Your task to perform on an android device: move an email to a new category in the gmail app Image 0: 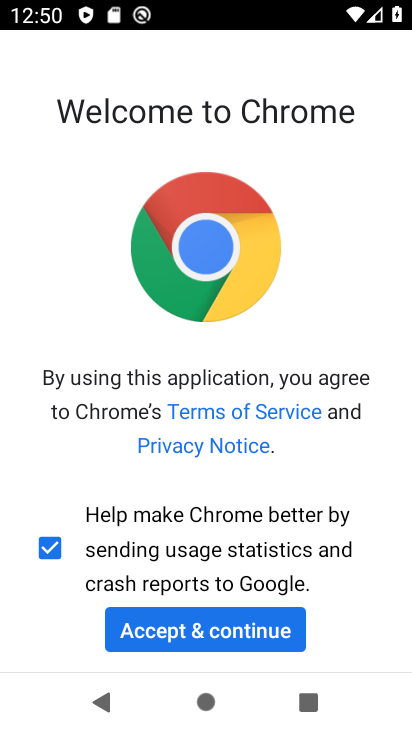
Step 0: press home button
Your task to perform on an android device: move an email to a new category in the gmail app Image 1: 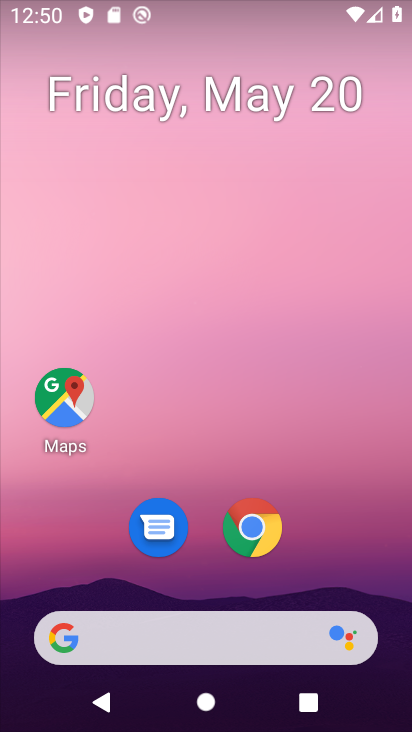
Step 1: drag from (177, 644) to (290, 122)
Your task to perform on an android device: move an email to a new category in the gmail app Image 2: 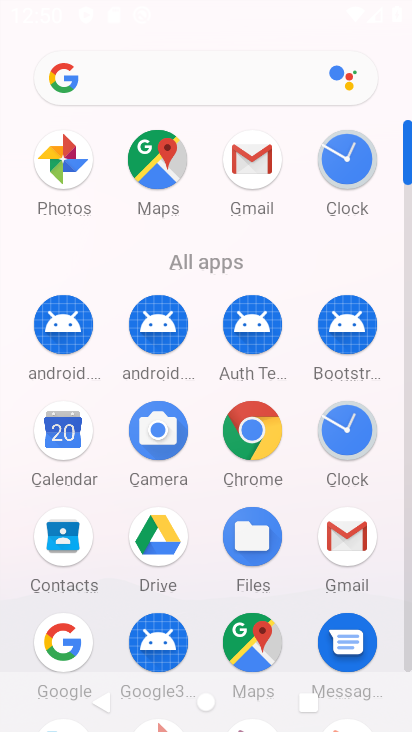
Step 2: click (248, 168)
Your task to perform on an android device: move an email to a new category in the gmail app Image 3: 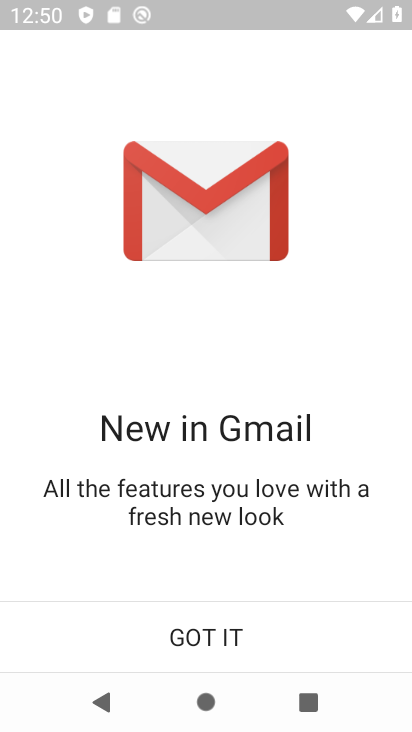
Step 3: click (202, 621)
Your task to perform on an android device: move an email to a new category in the gmail app Image 4: 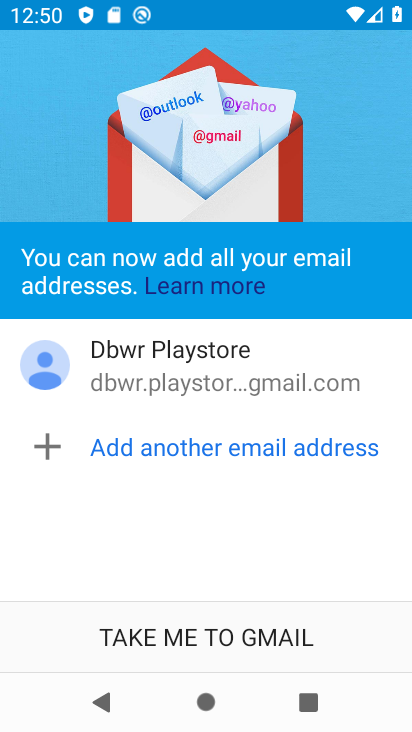
Step 4: click (201, 622)
Your task to perform on an android device: move an email to a new category in the gmail app Image 5: 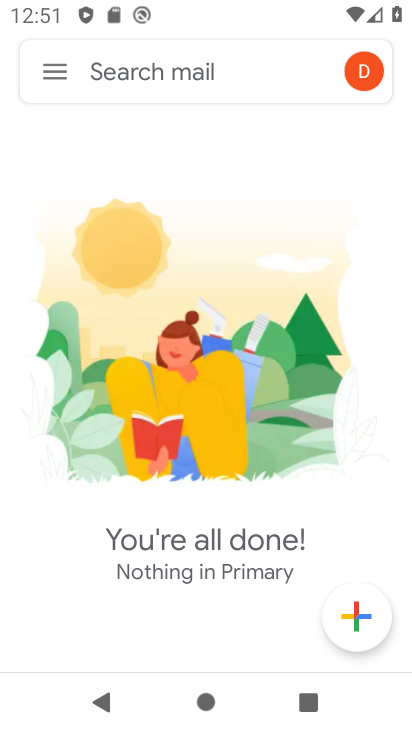
Step 5: task complete